Your task to perform on an android device: Open Chrome and go to settings Image 0: 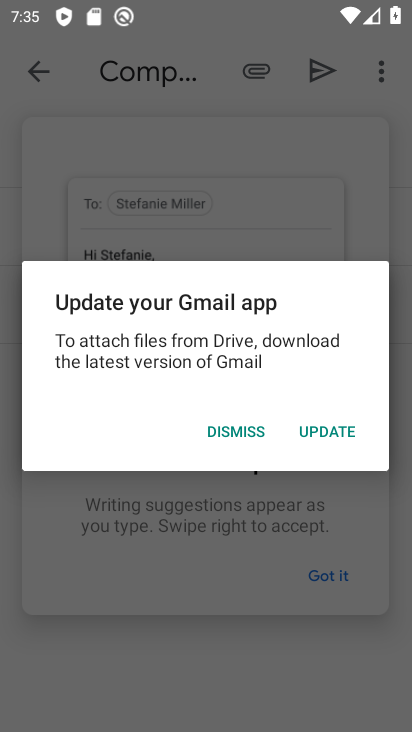
Step 0: press home button
Your task to perform on an android device: Open Chrome and go to settings Image 1: 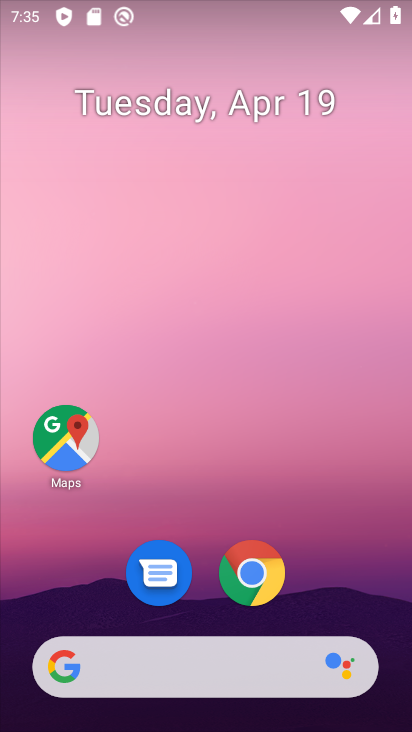
Step 1: drag from (308, 691) to (330, 389)
Your task to perform on an android device: Open Chrome and go to settings Image 2: 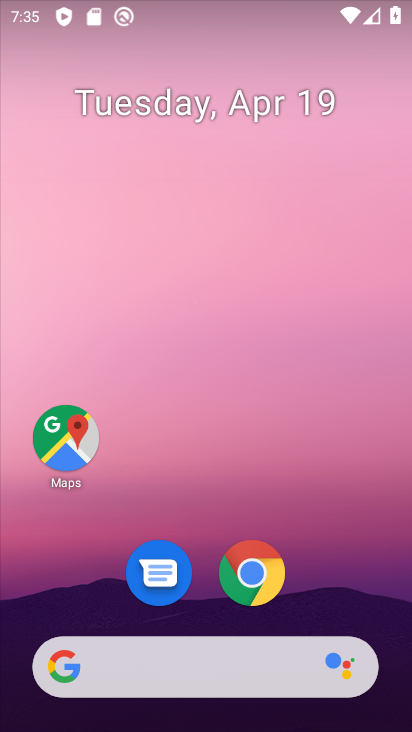
Step 2: drag from (196, 708) to (369, 99)
Your task to perform on an android device: Open Chrome and go to settings Image 3: 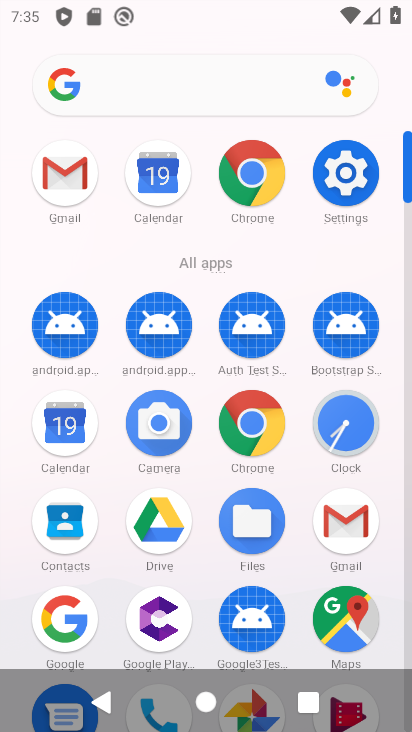
Step 3: click (352, 164)
Your task to perform on an android device: Open Chrome and go to settings Image 4: 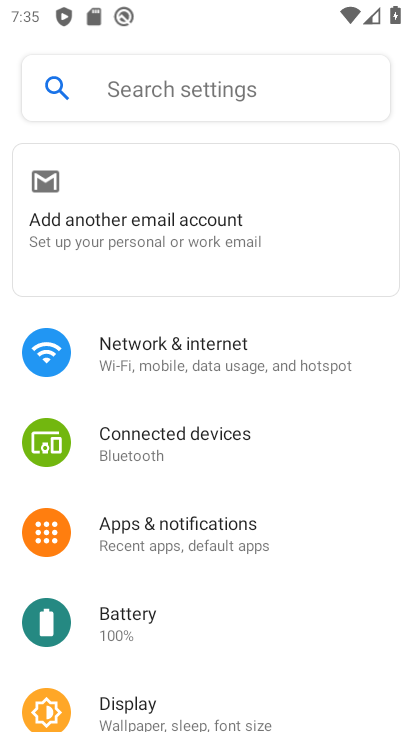
Step 4: press home button
Your task to perform on an android device: Open Chrome and go to settings Image 5: 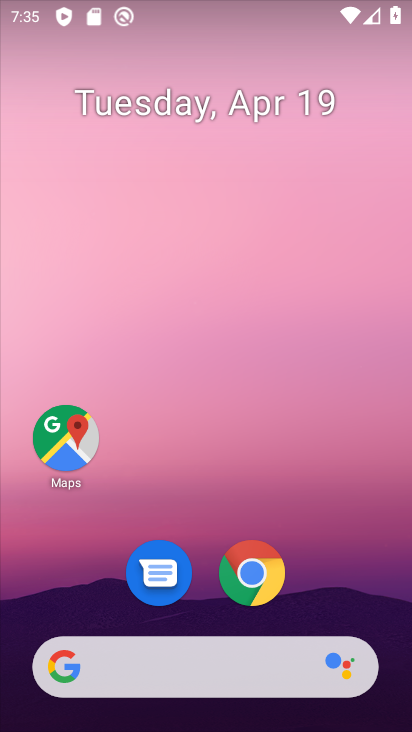
Step 5: drag from (226, 691) to (295, 316)
Your task to perform on an android device: Open Chrome and go to settings Image 6: 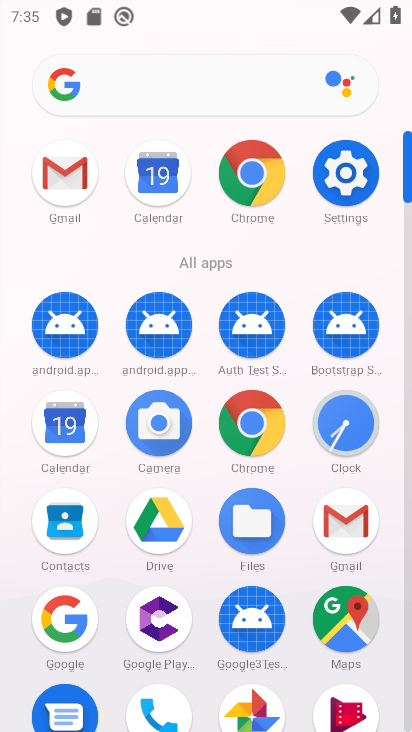
Step 6: click (280, 170)
Your task to perform on an android device: Open Chrome and go to settings Image 7: 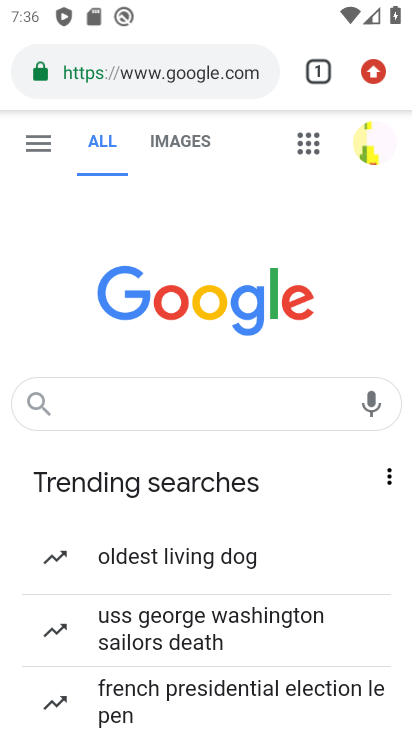
Step 7: click (370, 76)
Your task to perform on an android device: Open Chrome and go to settings Image 8: 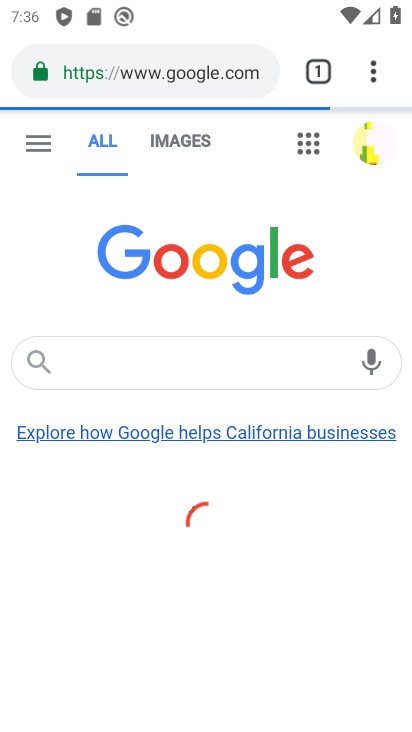
Step 8: click (376, 71)
Your task to perform on an android device: Open Chrome and go to settings Image 9: 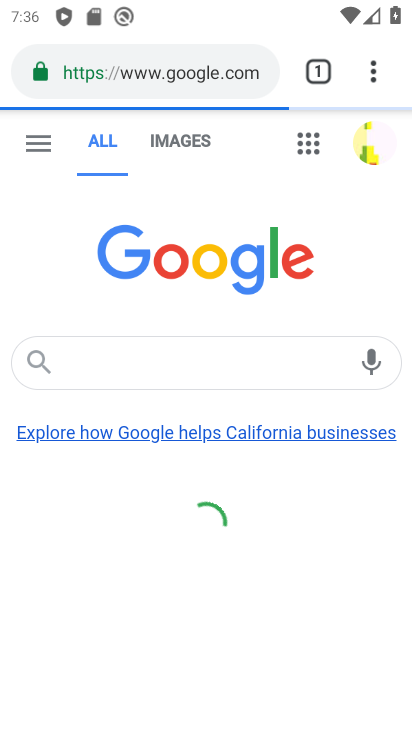
Step 9: click (376, 71)
Your task to perform on an android device: Open Chrome and go to settings Image 10: 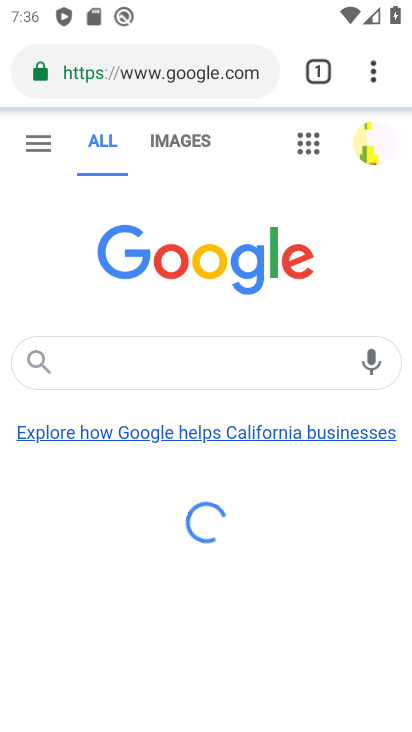
Step 10: click (376, 71)
Your task to perform on an android device: Open Chrome and go to settings Image 11: 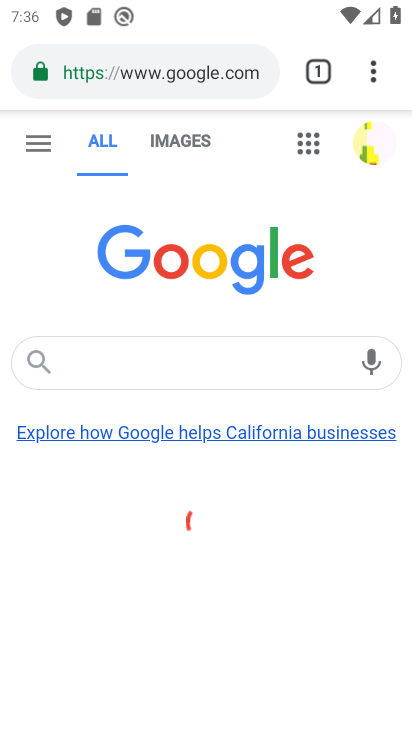
Step 11: click (373, 74)
Your task to perform on an android device: Open Chrome and go to settings Image 12: 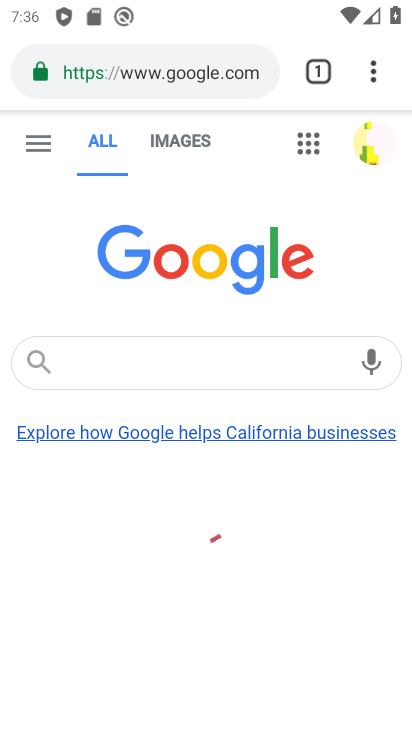
Step 12: click (374, 72)
Your task to perform on an android device: Open Chrome and go to settings Image 13: 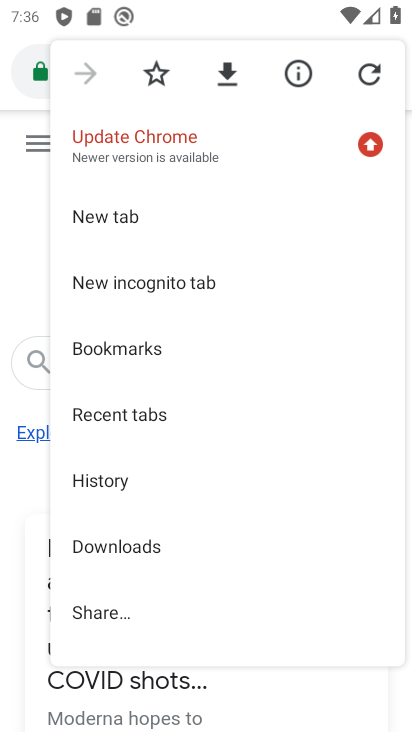
Step 13: drag from (120, 586) to (182, 334)
Your task to perform on an android device: Open Chrome and go to settings Image 14: 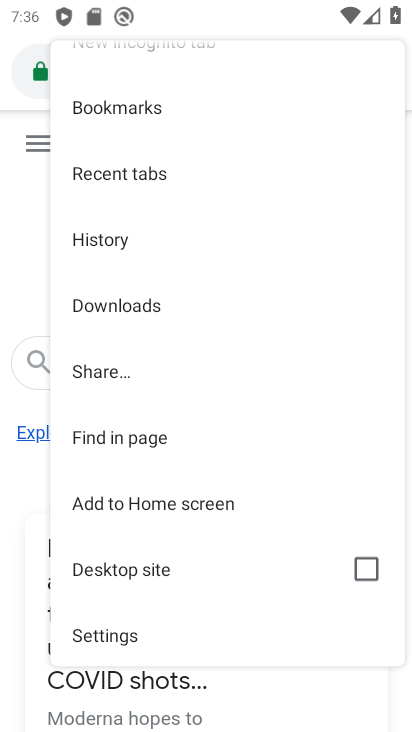
Step 14: click (138, 620)
Your task to perform on an android device: Open Chrome and go to settings Image 15: 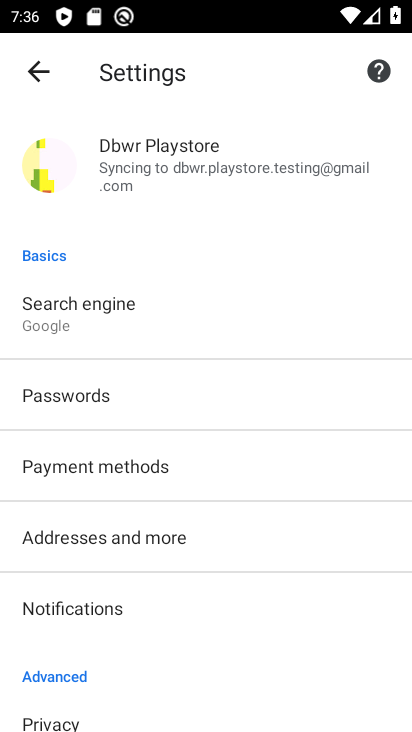
Step 15: task complete